Your task to perform on an android device: Go to Android settings Image 0: 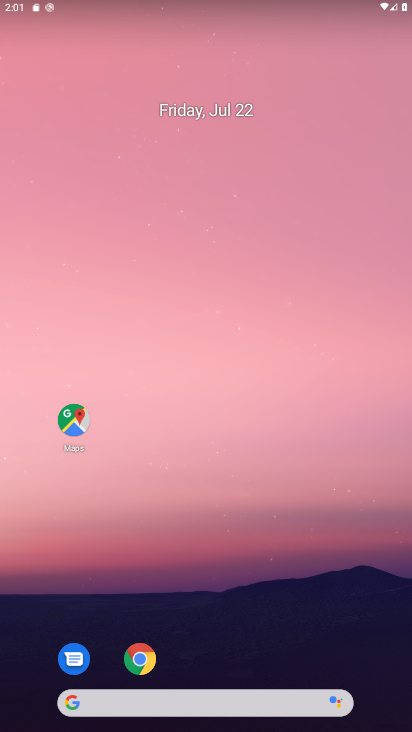
Step 0: drag from (390, 624) to (250, 65)
Your task to perform on an android device: Go to Android settings Image 1: 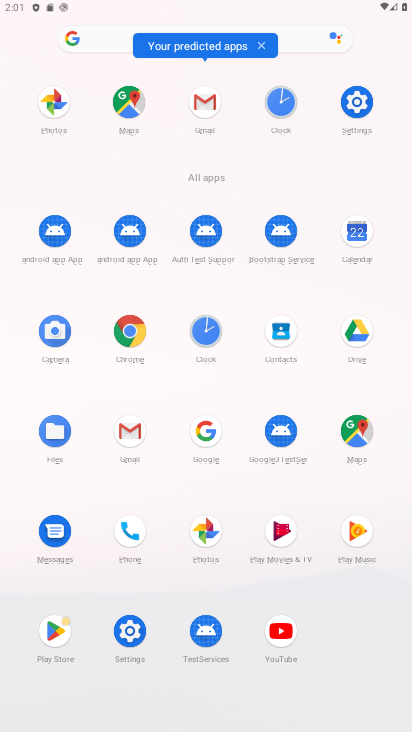
Step 1: click (124, 639)
Your task to perform on an android device: Go to Android settings Image 2: 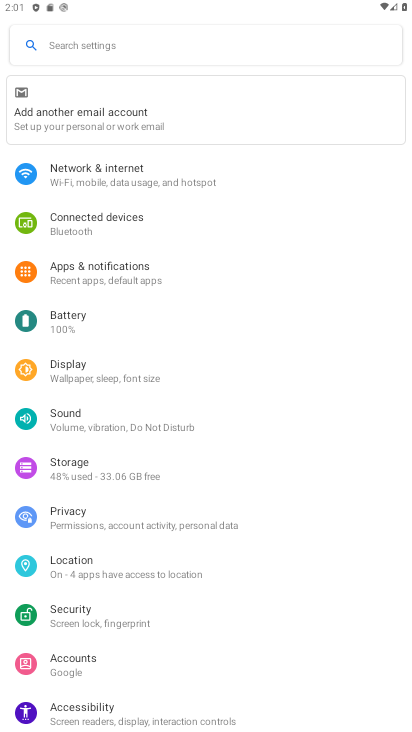
Step 2: task complete